Your task to perform on an android device: Open Android settings Image 0: 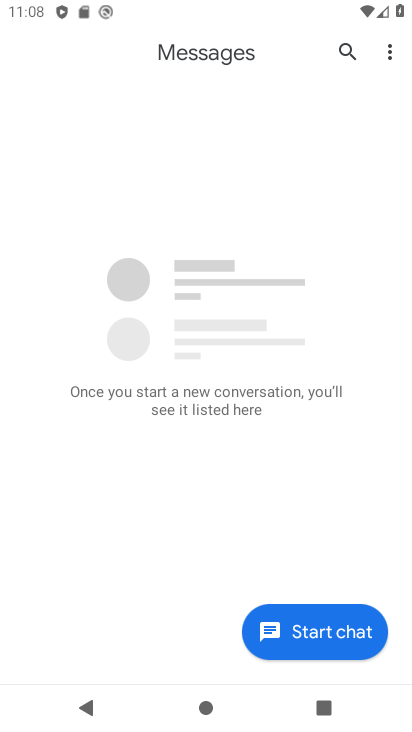
Step 0: press home button
Your task to perform on an android device: Open Android settings Image 1: 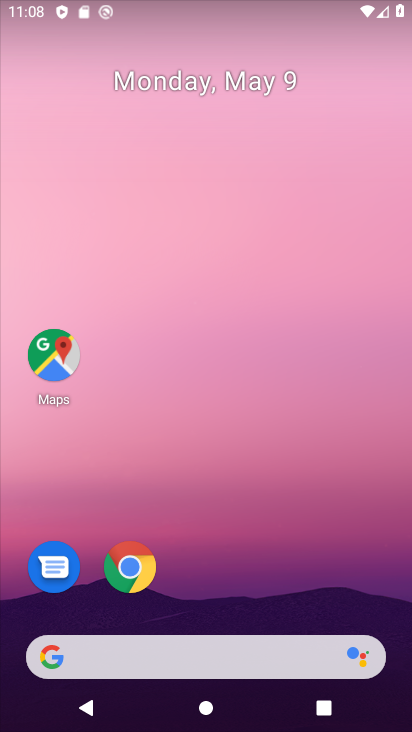
Step 1: drag from (214, 570) to (255, 123)
Your task to perform on an android device: Open Android settings Image 2: 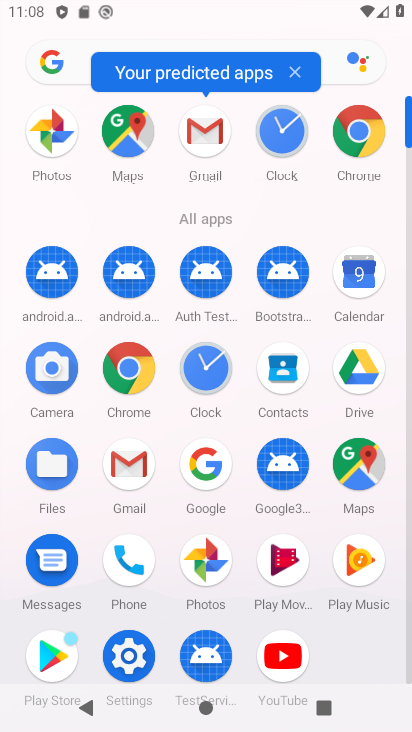
Step 2: click (134, 645)
Your task to perform on an android device: Open Android settings Image 3: 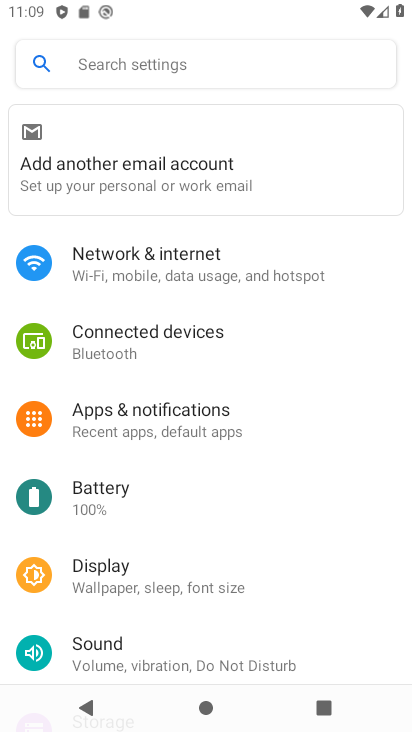
Step 3: drag from (219, 594) to (287, 88)
Your task to perform on an android device: Open Android settings Image 4: 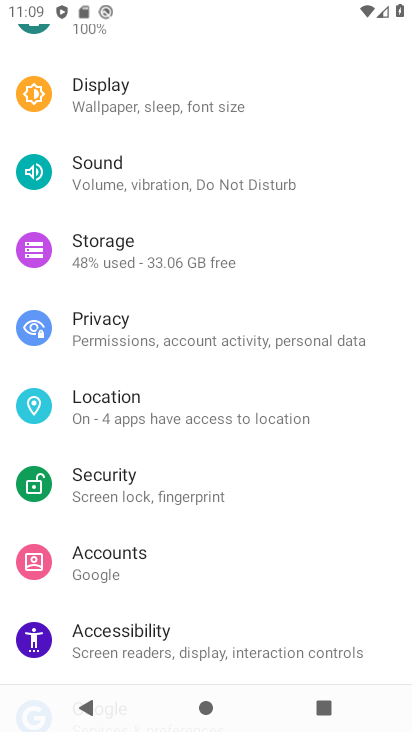
Step 4: drag from (139, 623) to (192, 214)
Your task to perform on an android device: Open Android settings Image 5: 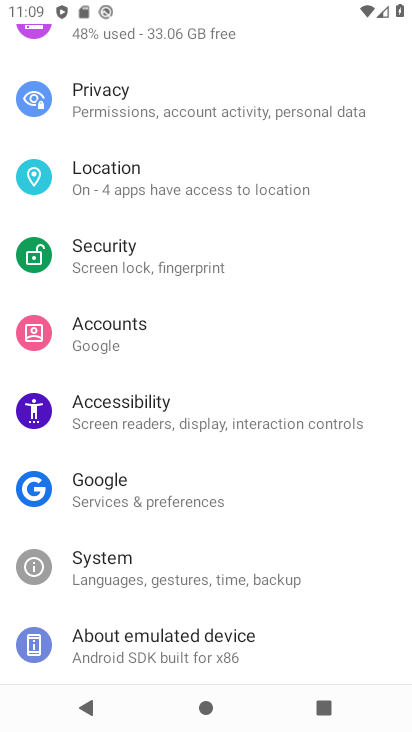
Step 5: click (161, 641)
Your task to perform on an android device: Open Android settings Image 6: 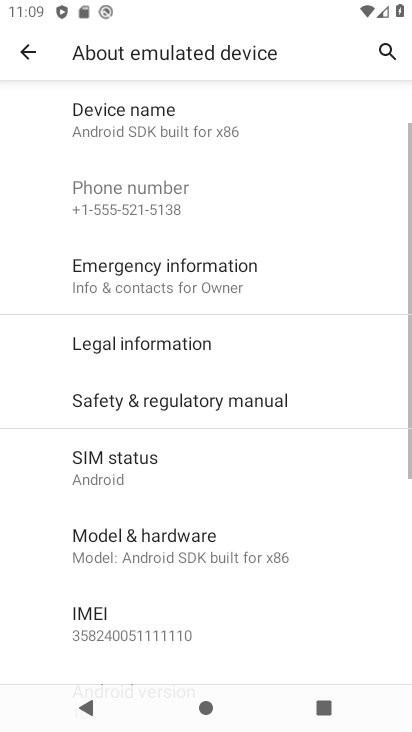
Step 6: drag from (156, 521) to (190, 258)
Your task to perform on an android device: Open Android settings Image 7: 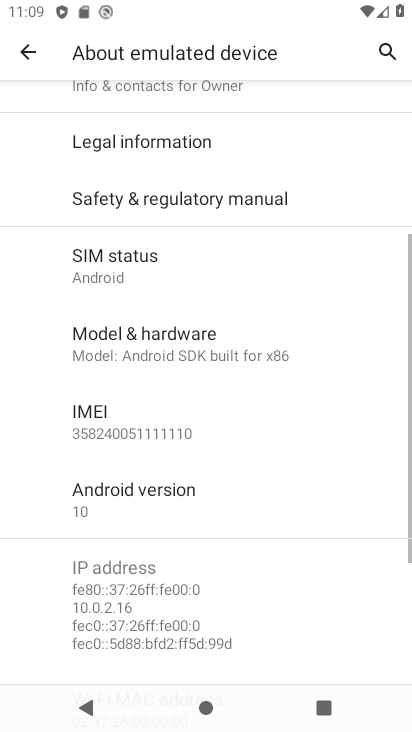
Step 7: click (129, 561)
Your task to perform on an android device: Open Android settings Image 8: 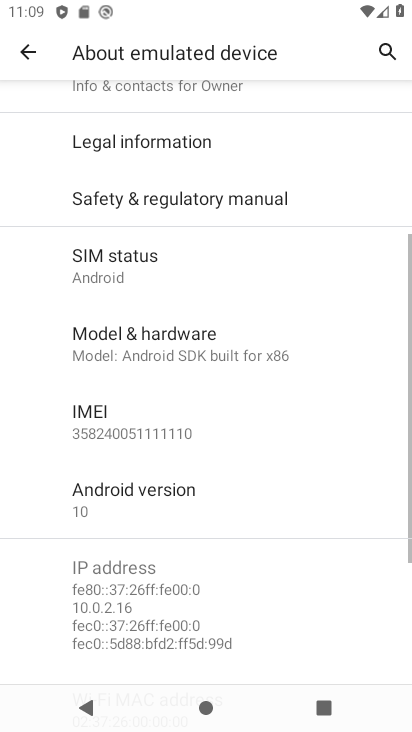
Step 8: click (138, 501)
Your task to perform on an android device: Open Android settings Image 9: 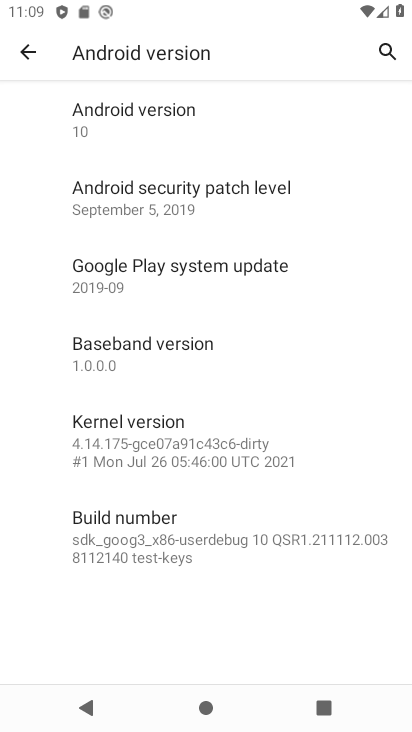
Step 9: task complete